Your task to perform on an android device: search for starred emails in the gmail app Image 0: 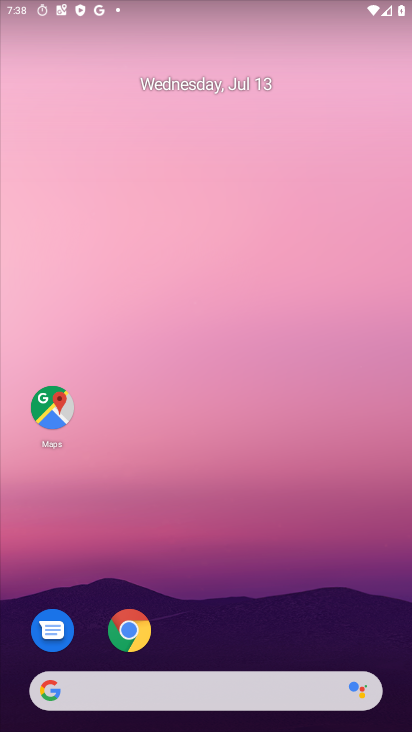
Step 0: drag from (353, 631) to (239, 13)
Your task to perform on an android device: search for starred emails in the gmail app Image 1: 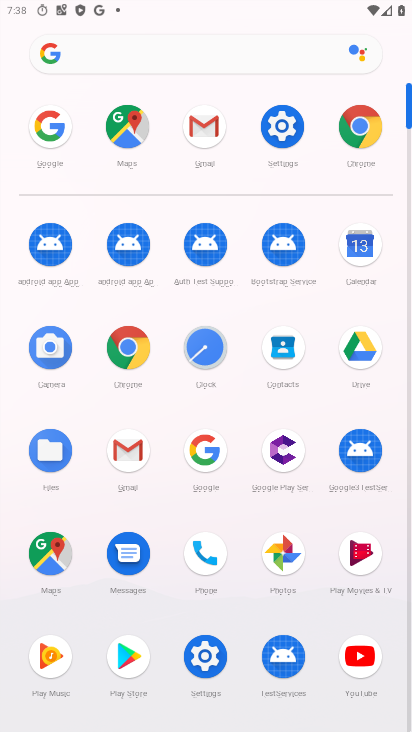
Step 1: click (123, 451)
Your task to perform on an android device: search for starred emails in the gmail app Image 2: 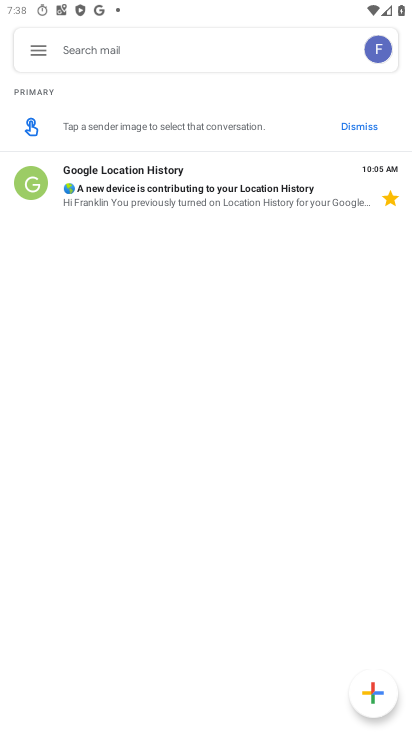
Step 2: click (33, 49)
Your task to perform on an android device: search for starred emails in the gmail app Image 3: 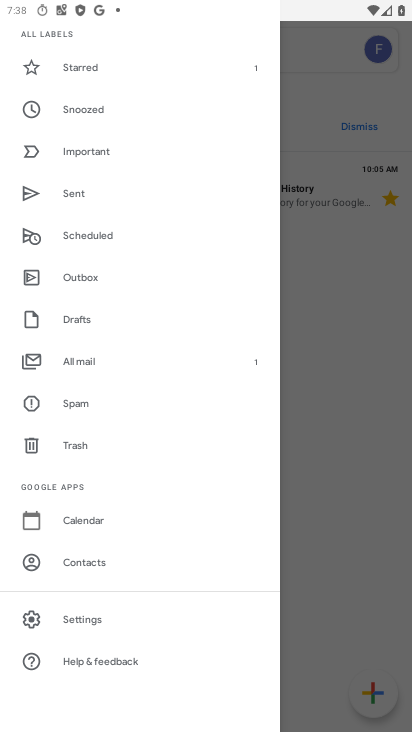
Step 3: click (87, 66)
Your task to perform on an android device: search for starred emails in the gmail app Image 4: 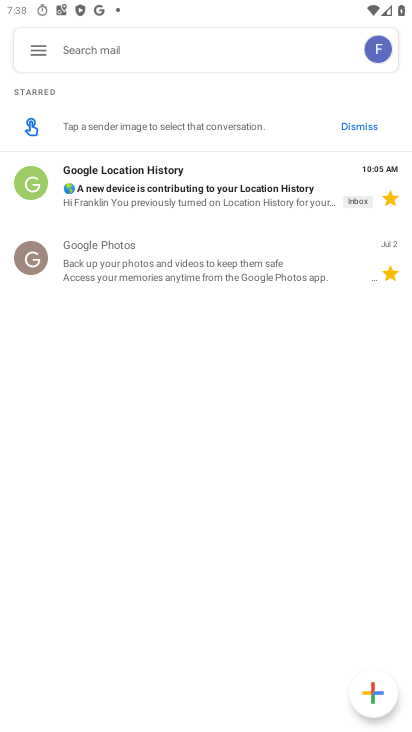
Step 4: task complete